Your task to perform on an android device: change text size in settings app Image 0: 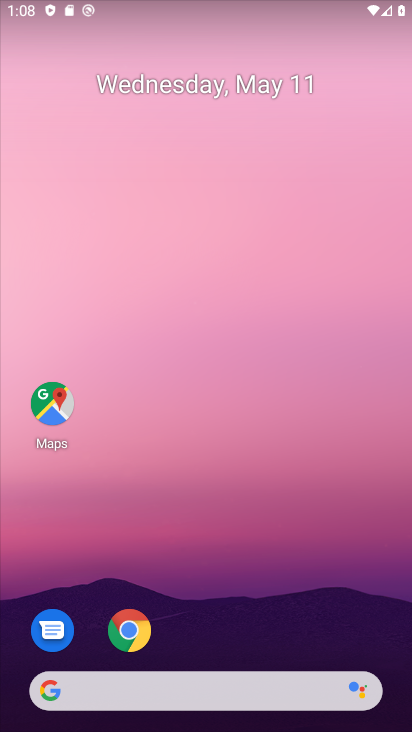
Step 0: drag from (175, 661) to (234, 194)
Your task to perform on an android device: change text size in settings app Image 1: 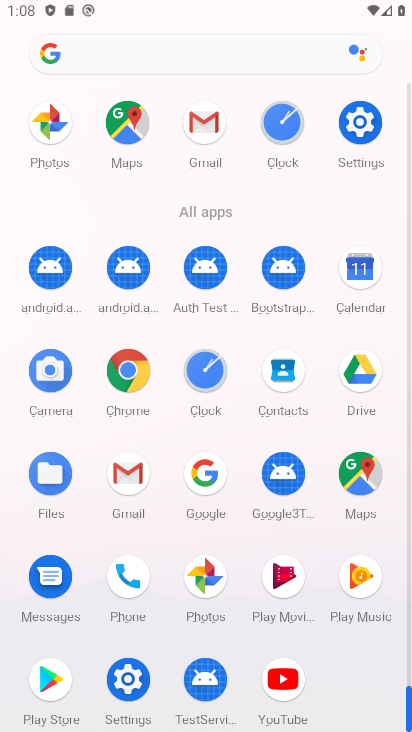
Step 1: drag from (173, 631) to (218, 408)
Your task to perform on an android device: change text size in settings app Image 2: 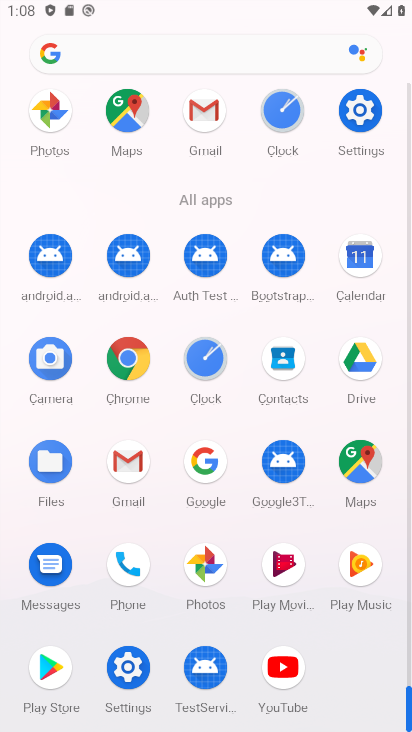
Step 2: click (131, 671)
Your task to perform on an android device: change text size in settings app Image 3: 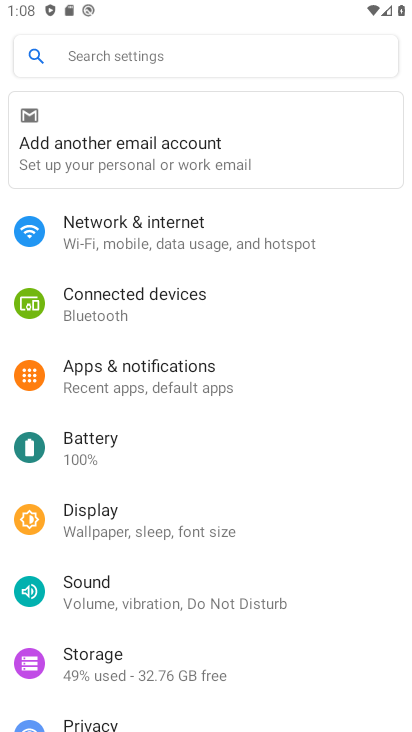
Step 3: drag from (194, 660) to (255, 334)
Your task to perform on an android device: change text size in settings app Image 4: 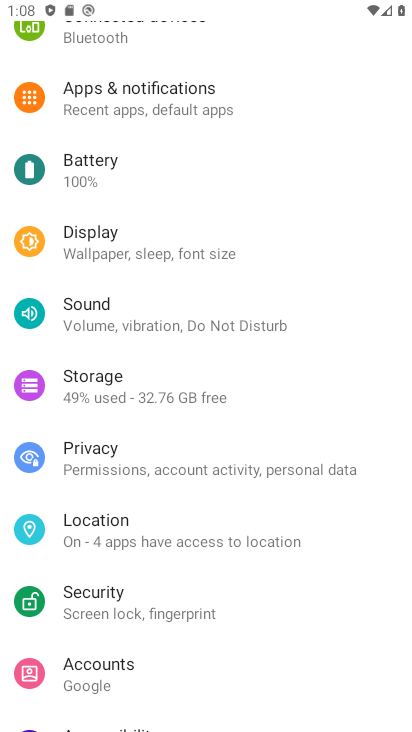
Step 4: click (157, 260)
Your task to perform on an android device: change text size in settings app Image 5: 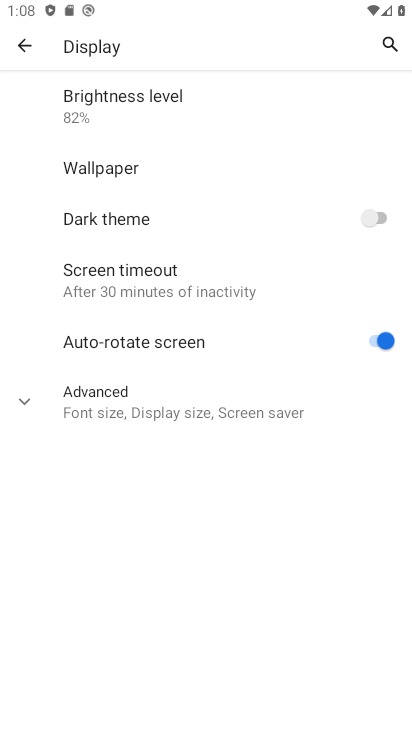
Step 5: click (165, 394)
Your task to perform on an android device: change text size in settings app Image 6: 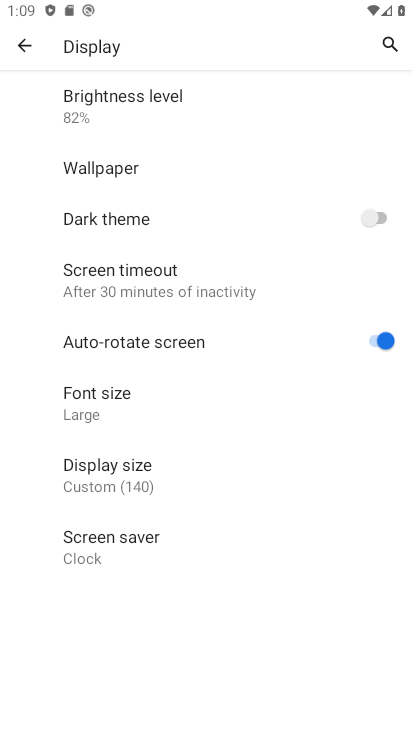
Step 6: click (168, 390)
Your task to perform on an android device: change text size in settings app Image 7: 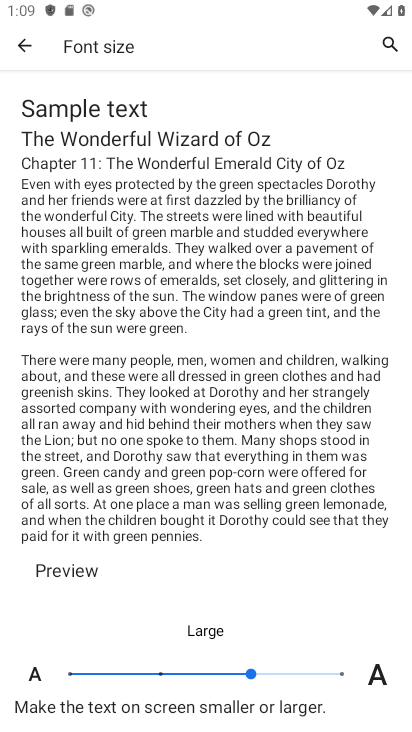
Step 7: click (163, 674)
Your task to perform on an android device: change text size in settings app Image 8: 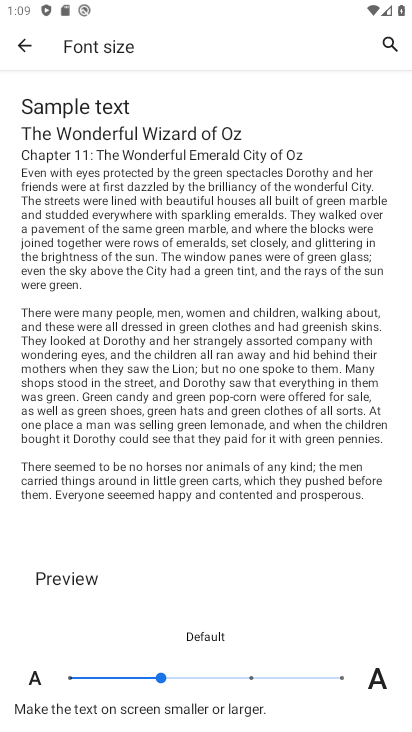
Step 8: task complete